Your task to perform on an android device: Open settings Image 0: 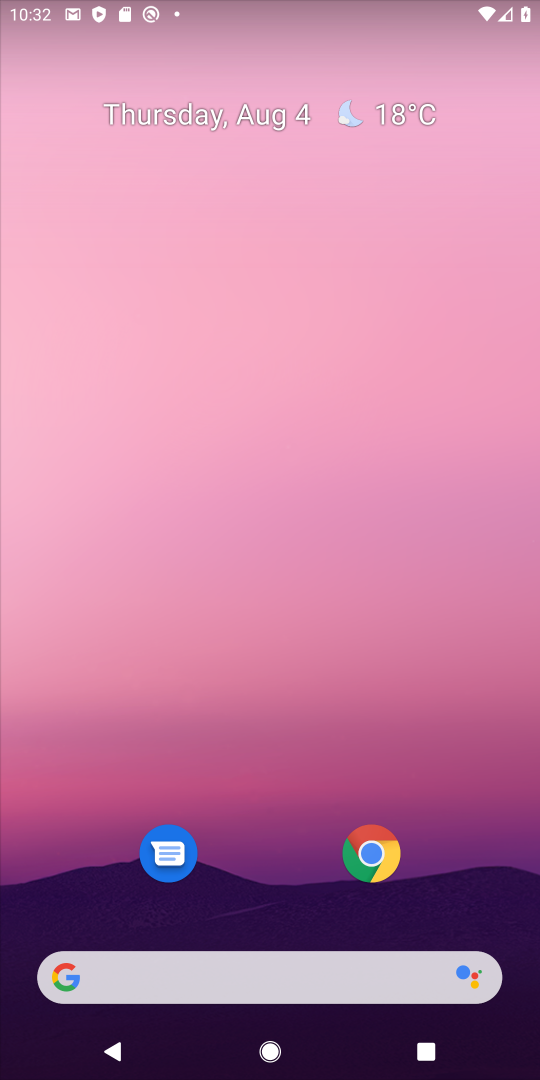
Step 0: drag from (275, 963) to (240, 34)
Your task to perform on an android device: Open settings Image 1: 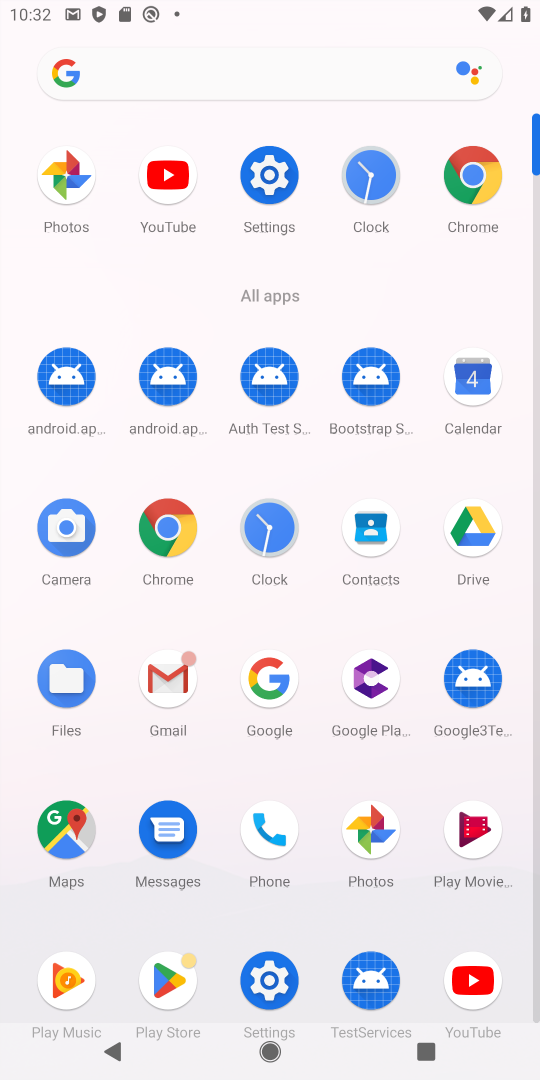
Step 1: click (264, 184)
Your task to perform on an android device: Open settings Image 2: 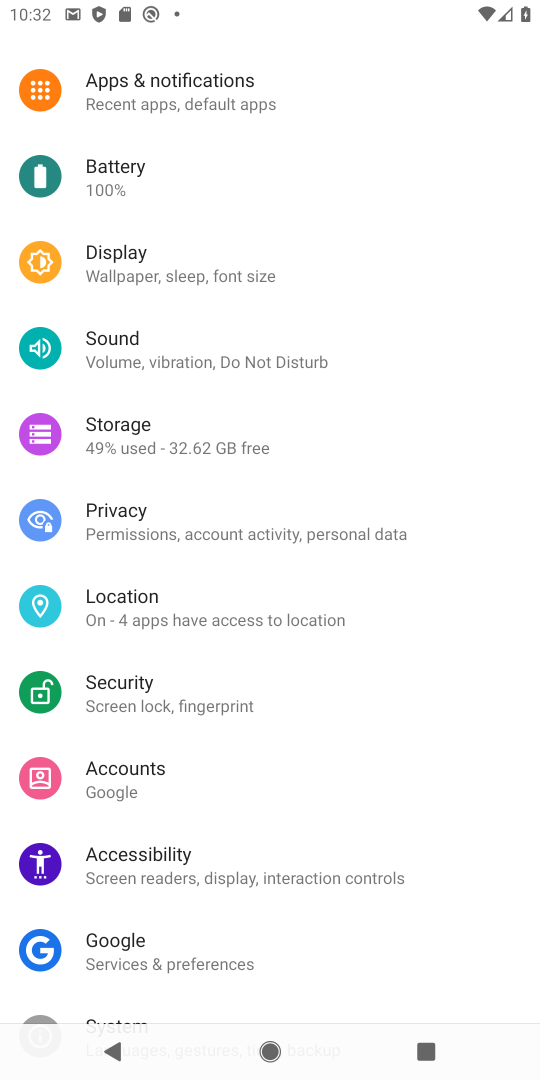
Step 2: task complete